Your task to perform on an android device: set the stopwatch Image 0: 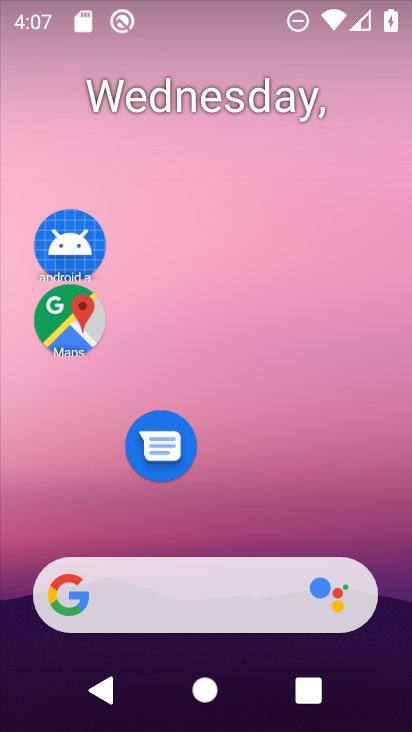
Step 0: drag from (279, 537) to (315, 124)
Your task to perform on an android device: set the stopwatch Image 1: 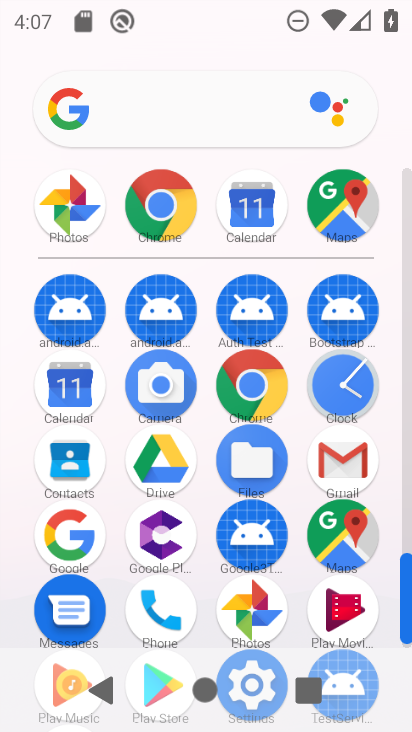
Step 1: drag from (409, 612) to (409, 721)
Your task to perform on an android device: set the stopwatch Image 2: 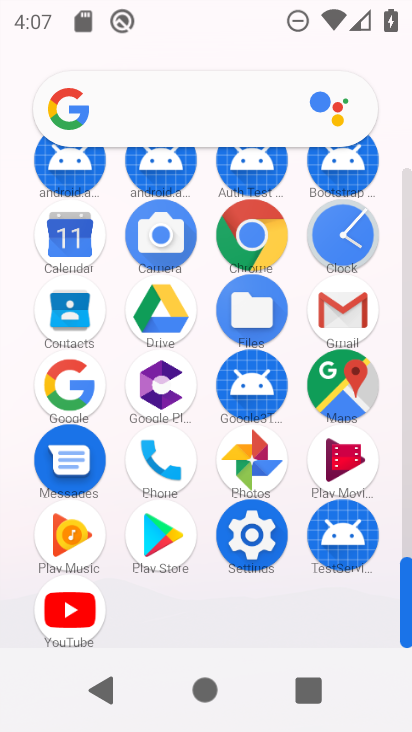
Step 2: click (269, 545)
Your task to perform on an android device: set the stopwatch Image 3: 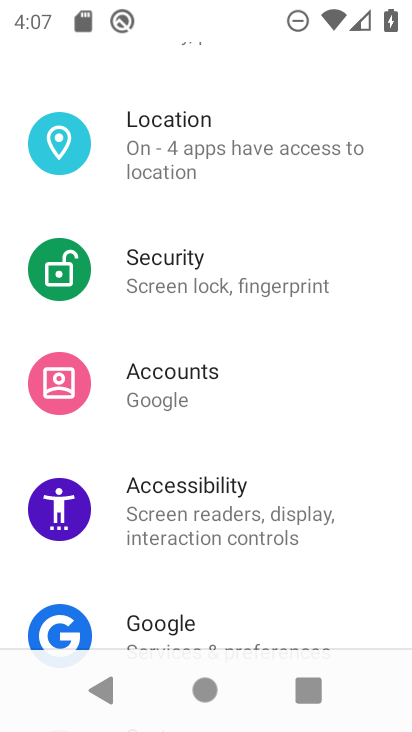
Step 3: press home button
Your task to perform on an android device: set the stopwatch Image 4: 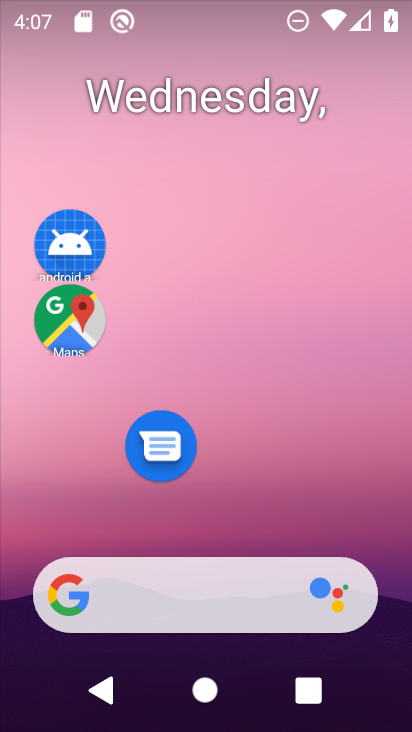
Step 4: drag from (214, 468) to (247, 190)
Your task to perform on an android device: set the stopwatch Image 5: 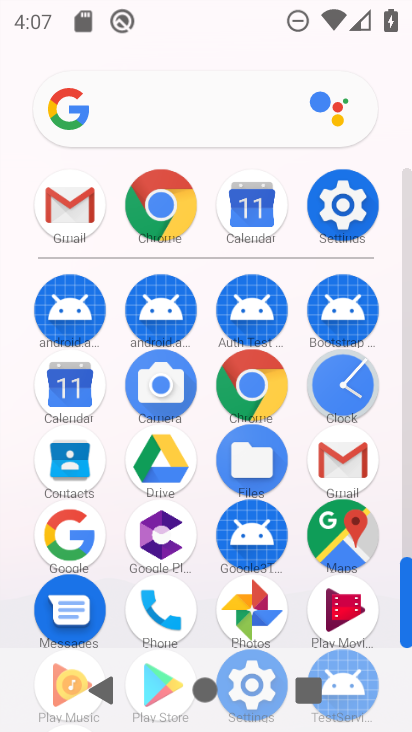
Step 5: click (345, 386)
Your task to perform on an android device: set the stopwatch Image 6: 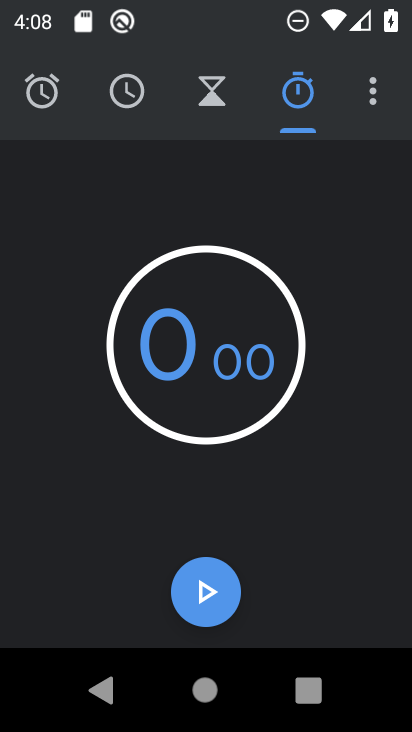
Step 6: task complete